Your task to perform on an android device: Show the shopping cart on costco. Search for razer kraken on costco, select the first entry, and add it to the cart. Image 0: 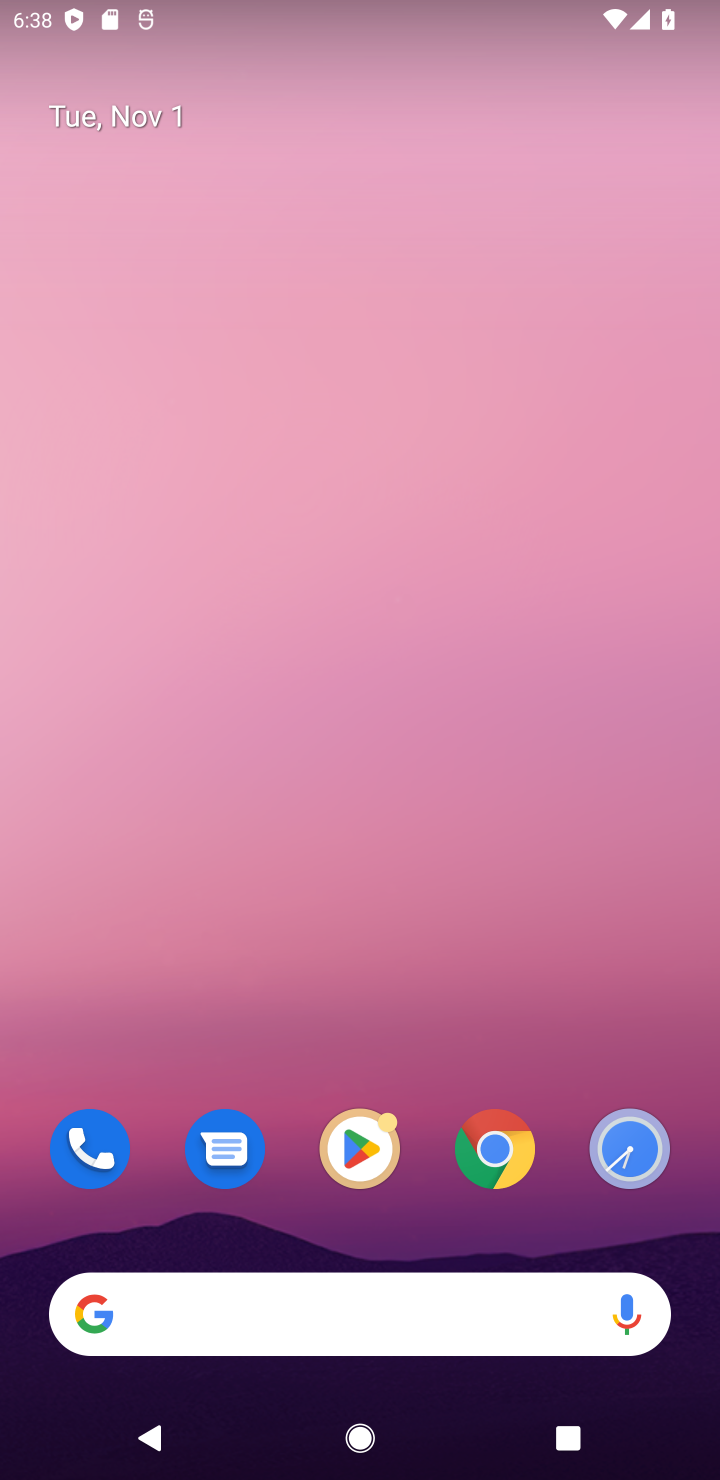
Step 0: drag from (452, 1155) to (506, 263)
Your task to perform on an android device: Show the shopping cart on costco. Search for razer kraken on costco, select the first entry, and add it to the cart. Image 1: 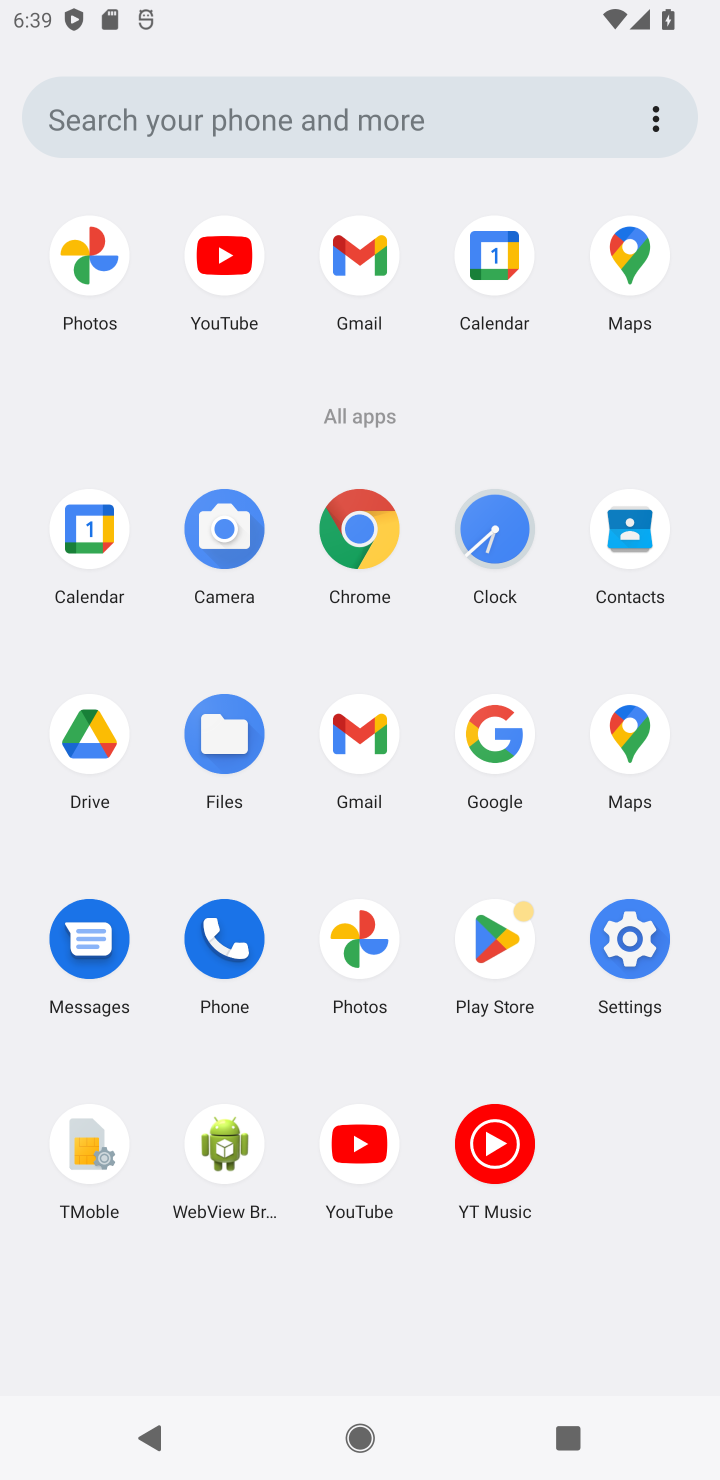
Step 1: click (351, 553)
Your task to perform on an android device: Show the shopping cart on costco. Search for razer kraken on costco, select the first entry, and add it to the cart. Image 2: 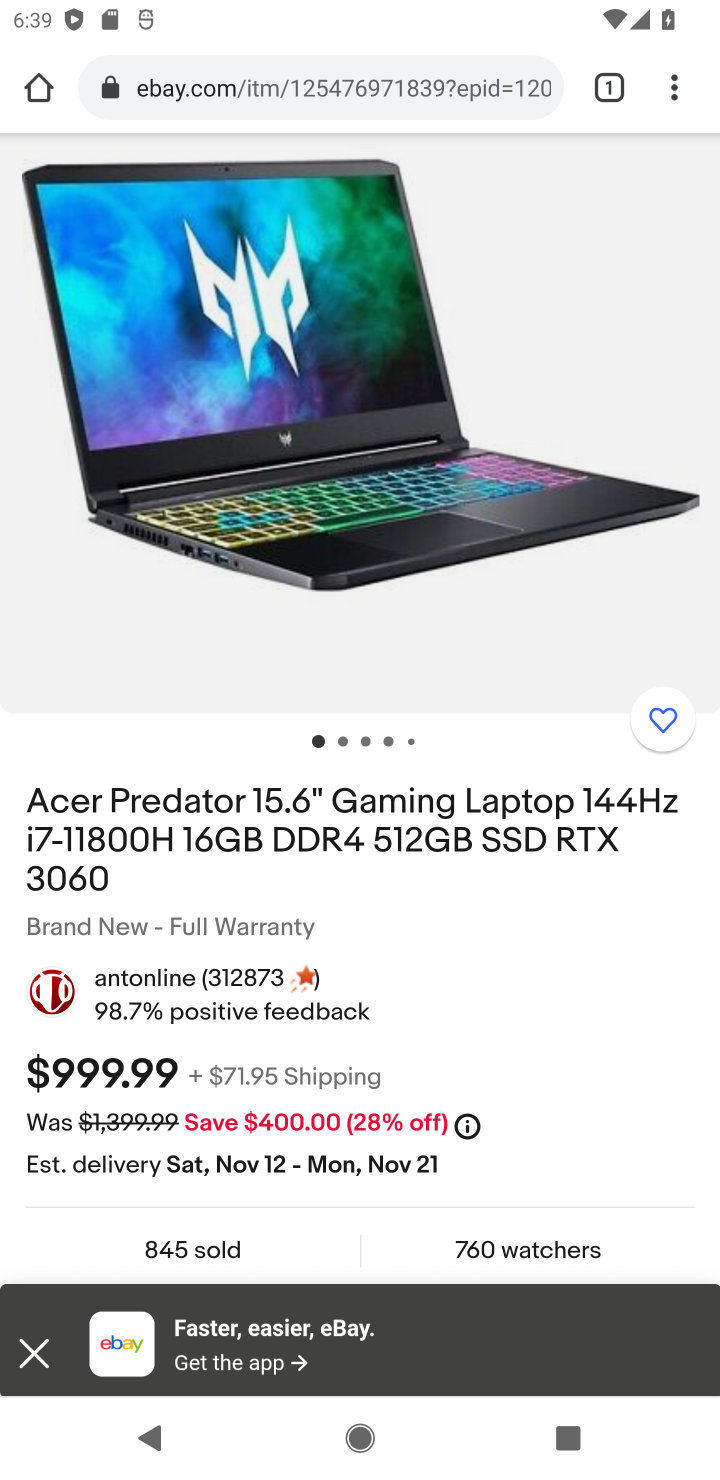
Step 2: click (359, 86)
Your task to perform on an android device: Show the shopping cart on costco. Search for razer kraken on costco, select the first entry, and add it to the cart. Image 3: 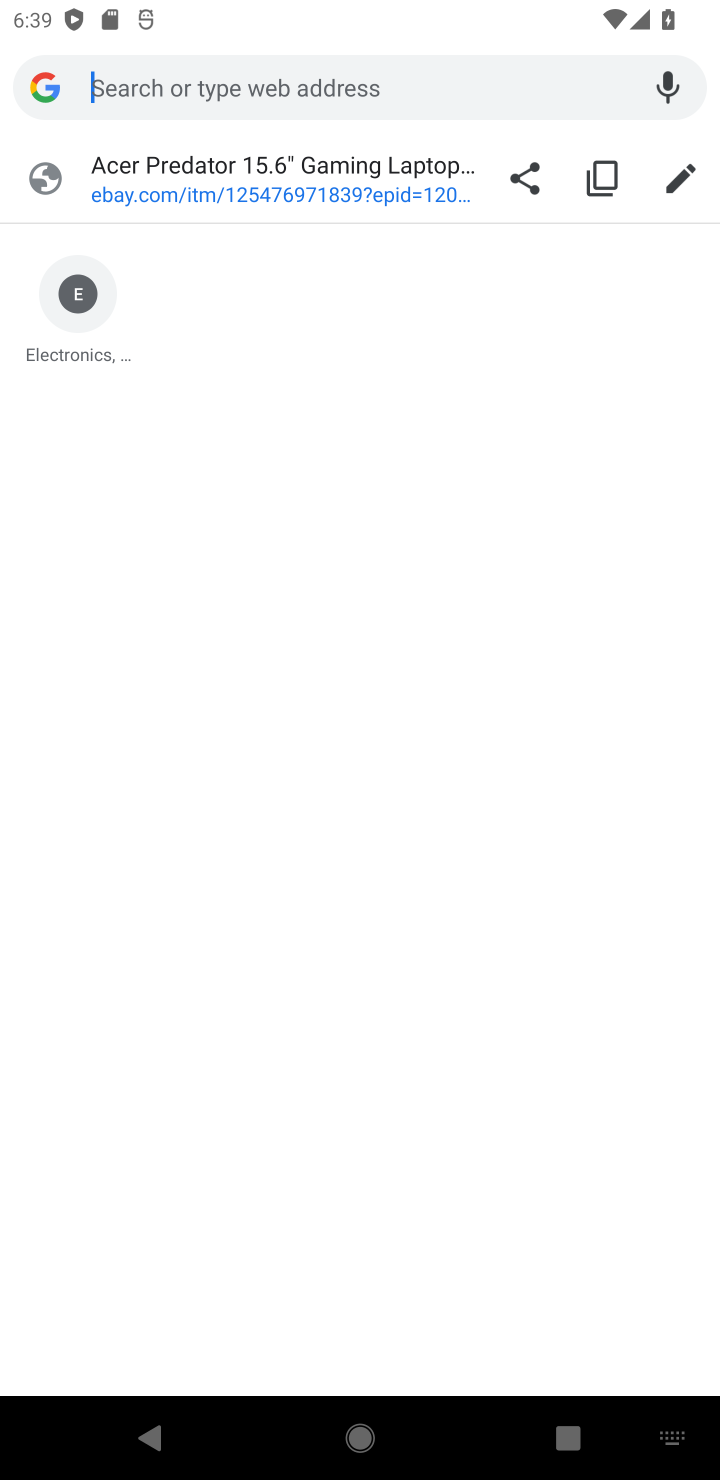
Step 3: type "costco.com"
Your task to perform on an android device: Show the shopping cart on costco. Search for razer kraken on costco, select the first entry, and add it to the cart. Image 4: 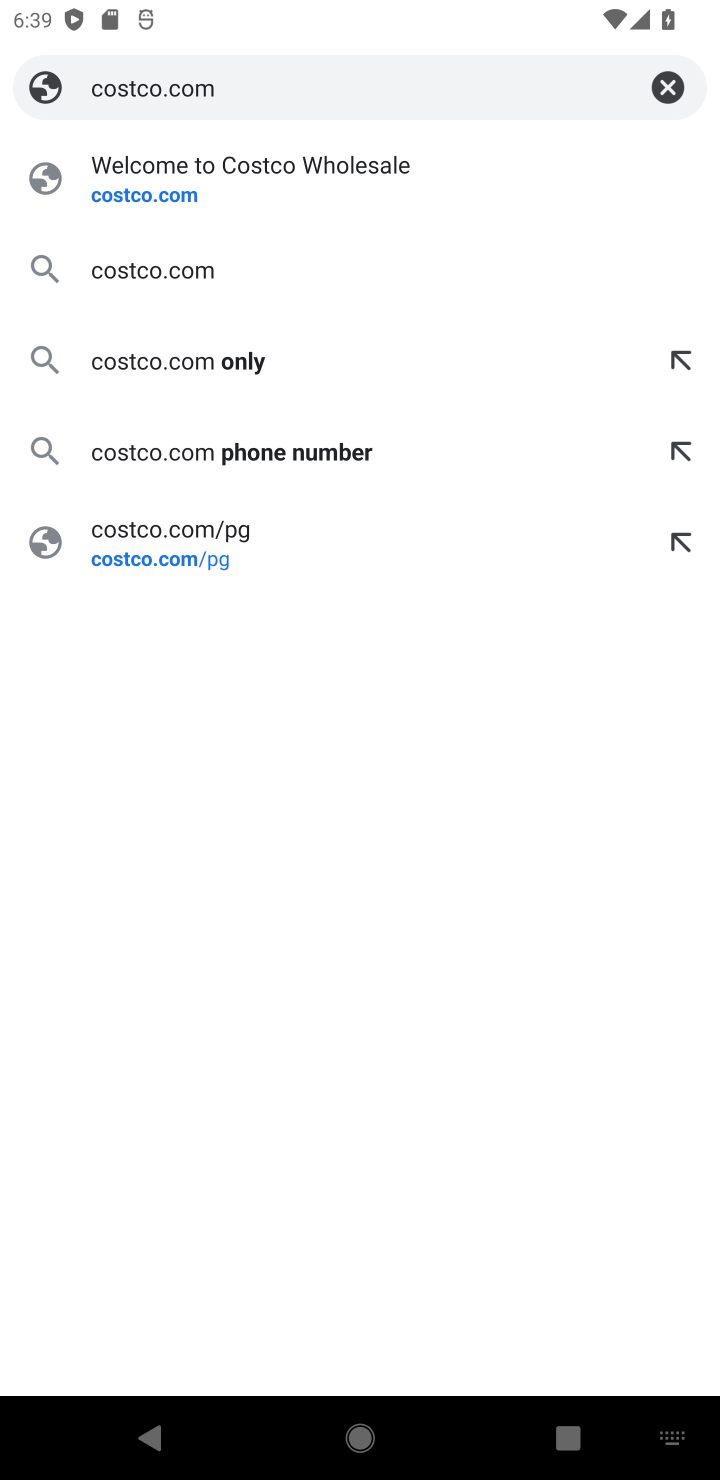
Step 4: press enter
Your task to perform on an android device: Show the shopping cart on costco. Search for razer kraken on costco, select the first entry, and add it to the cart. Image 5: 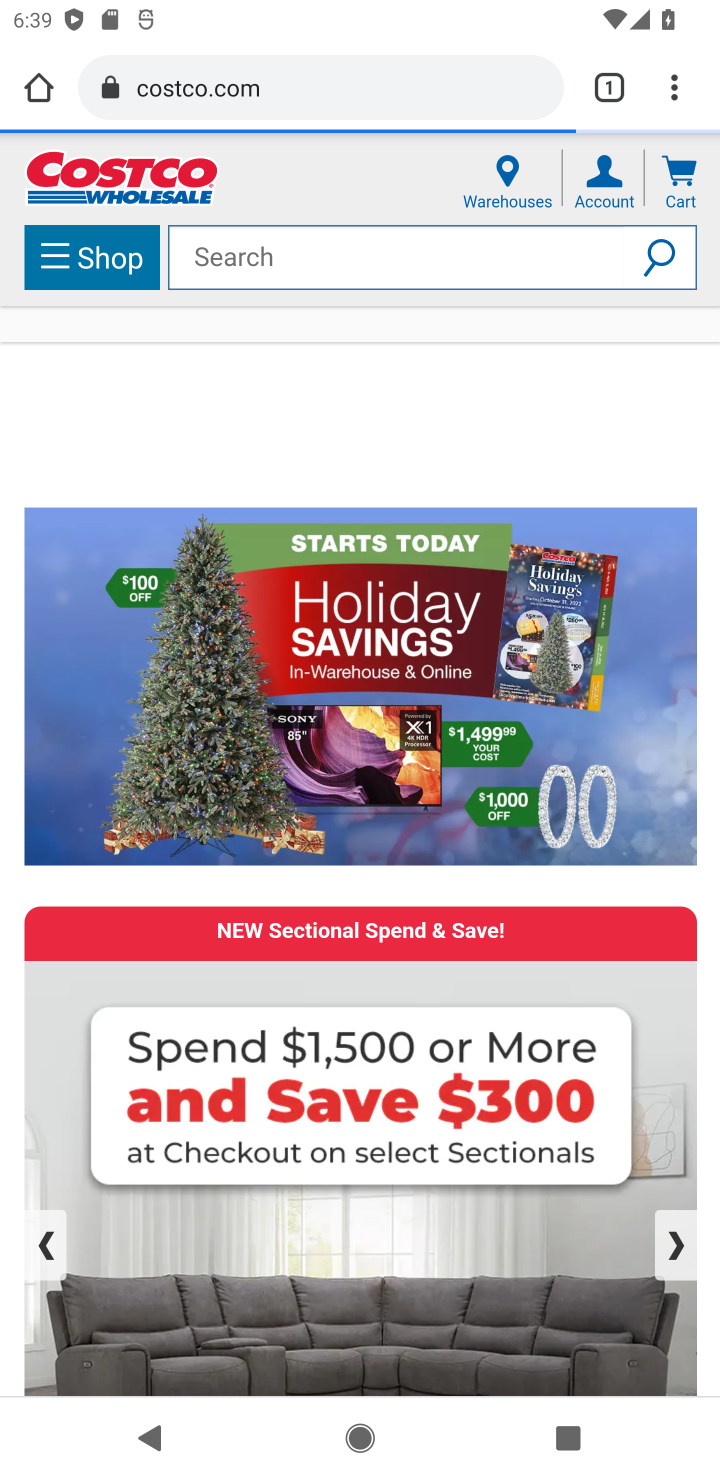
Step 5: click (685, 180)
Your task to perform on an android device: Show the shopping cart on costco. Search for razer kraken on costco, select the first entry, and add it to the cart. Image 6: 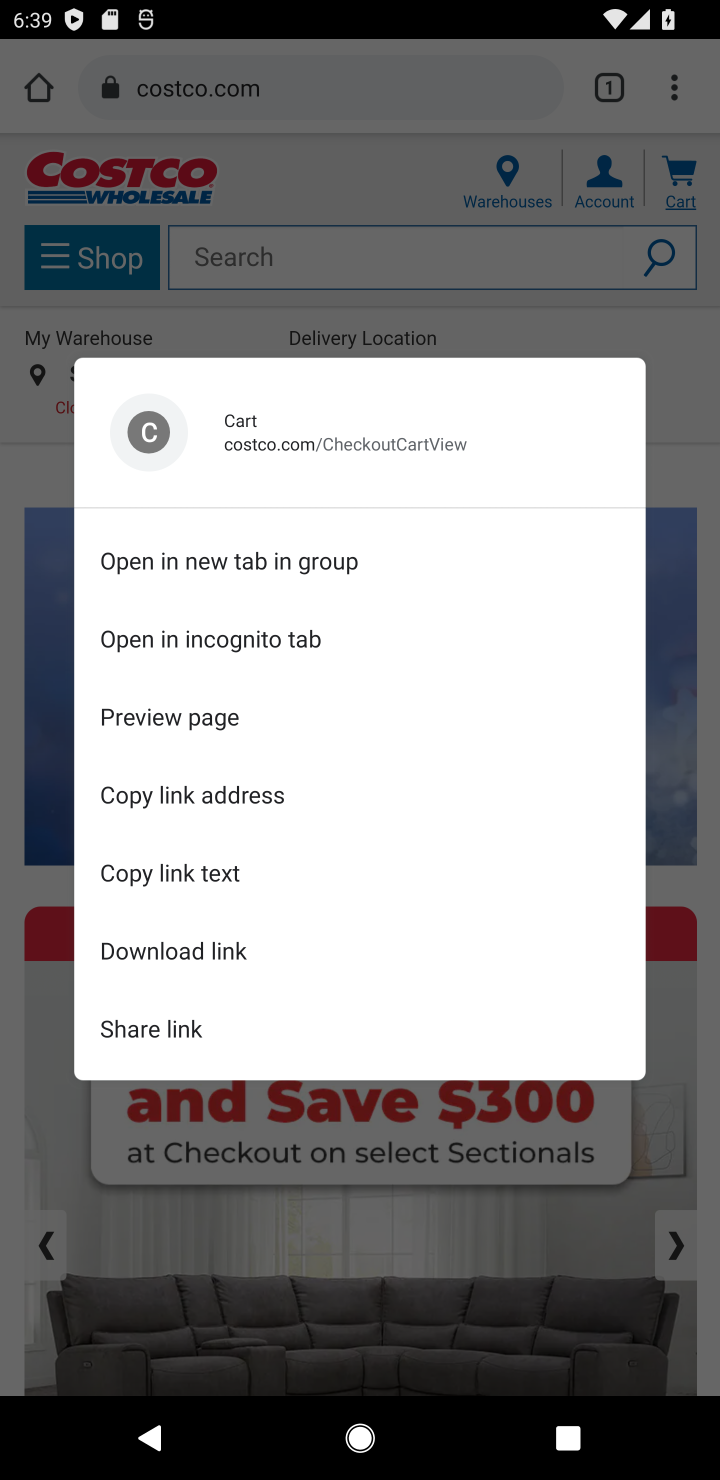
Step 6: click (543, 260)
Your task to perform on an android device: Show the shopping cart on costco. Search for razer kraken on costco, select the first entry, and add it to the cart. Image 7: 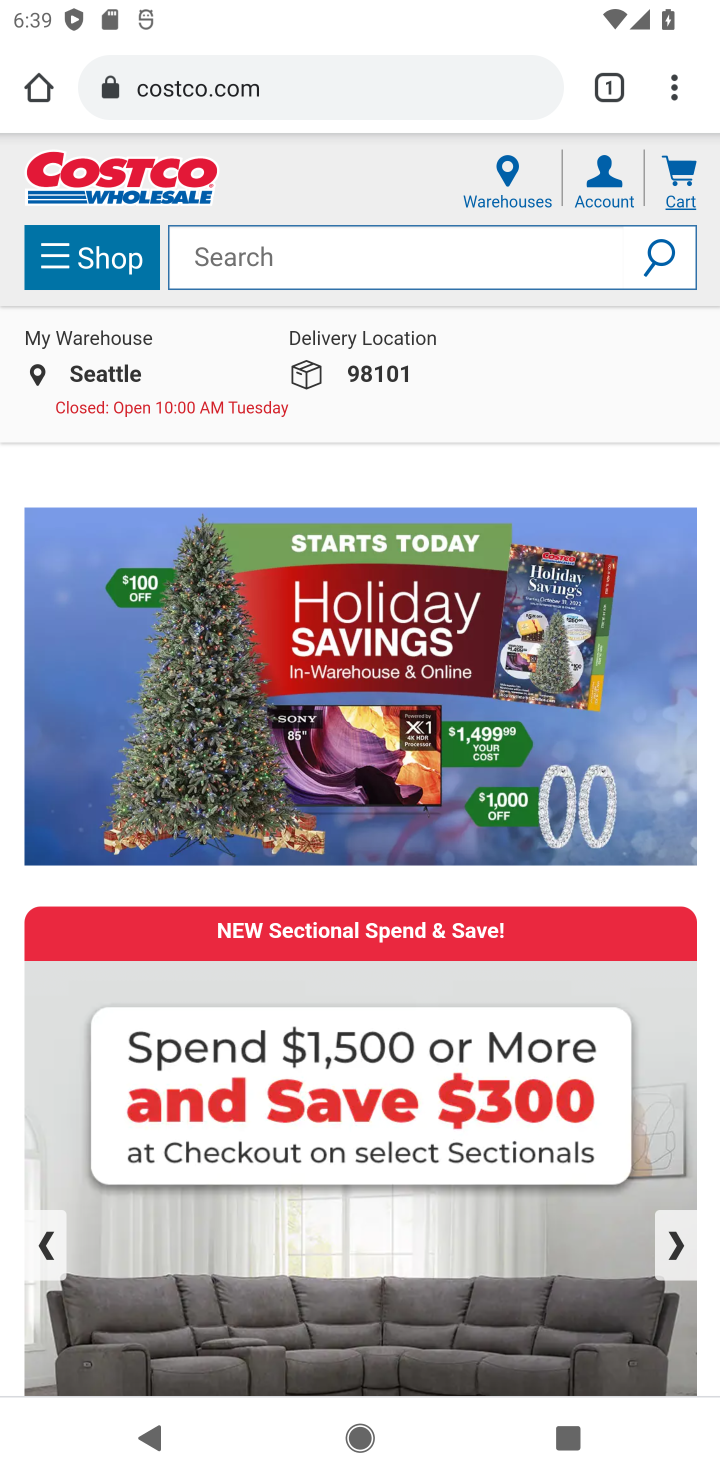
Step 7: click (675, 178)
Your task to perform on an android device: Show the shopping cart on costco. Search for razer kraken on costco, select the first entry, and add it to the cart. Image 8: 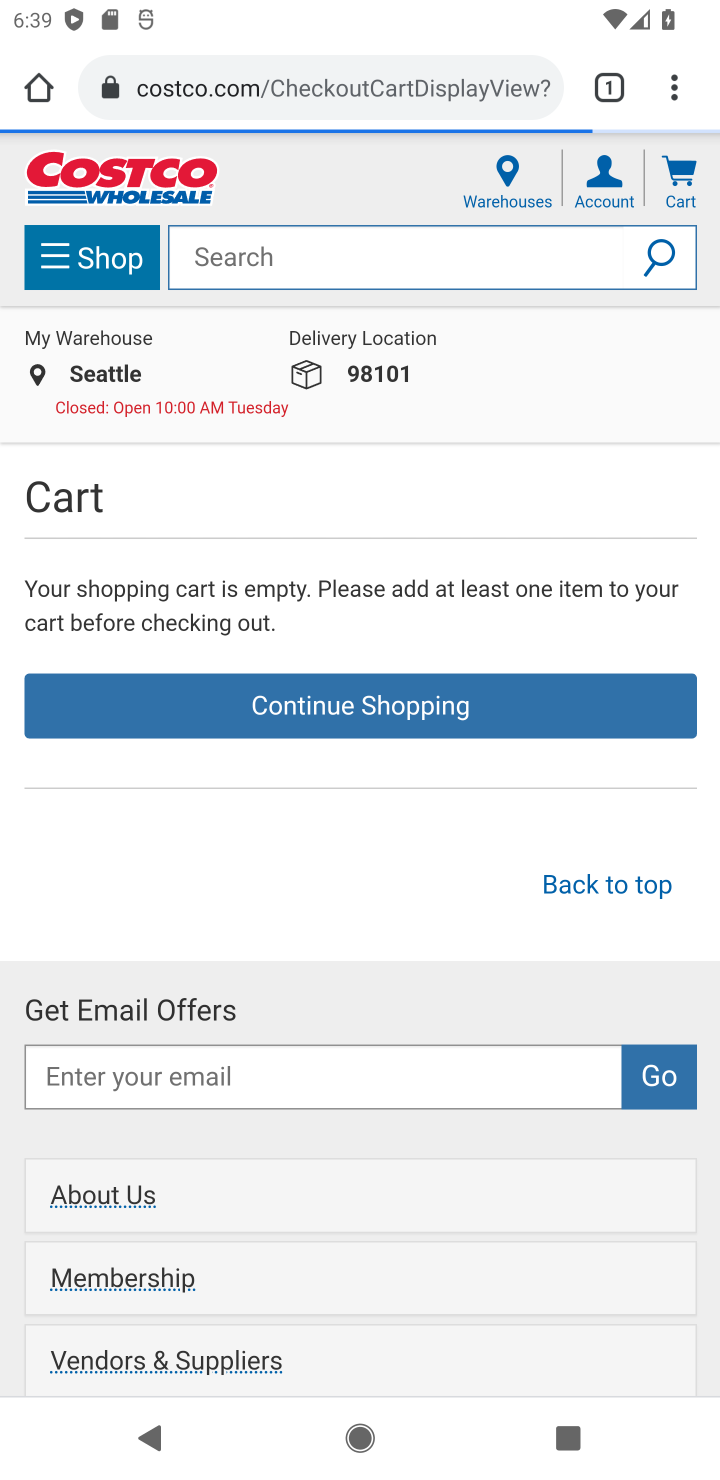
Step 8: click (490, 248)
Your task to perform on an android device: Show the shopping cart on costco. Search for razer kraken on costco, select the first entry, and add it to the cart. Image 9: 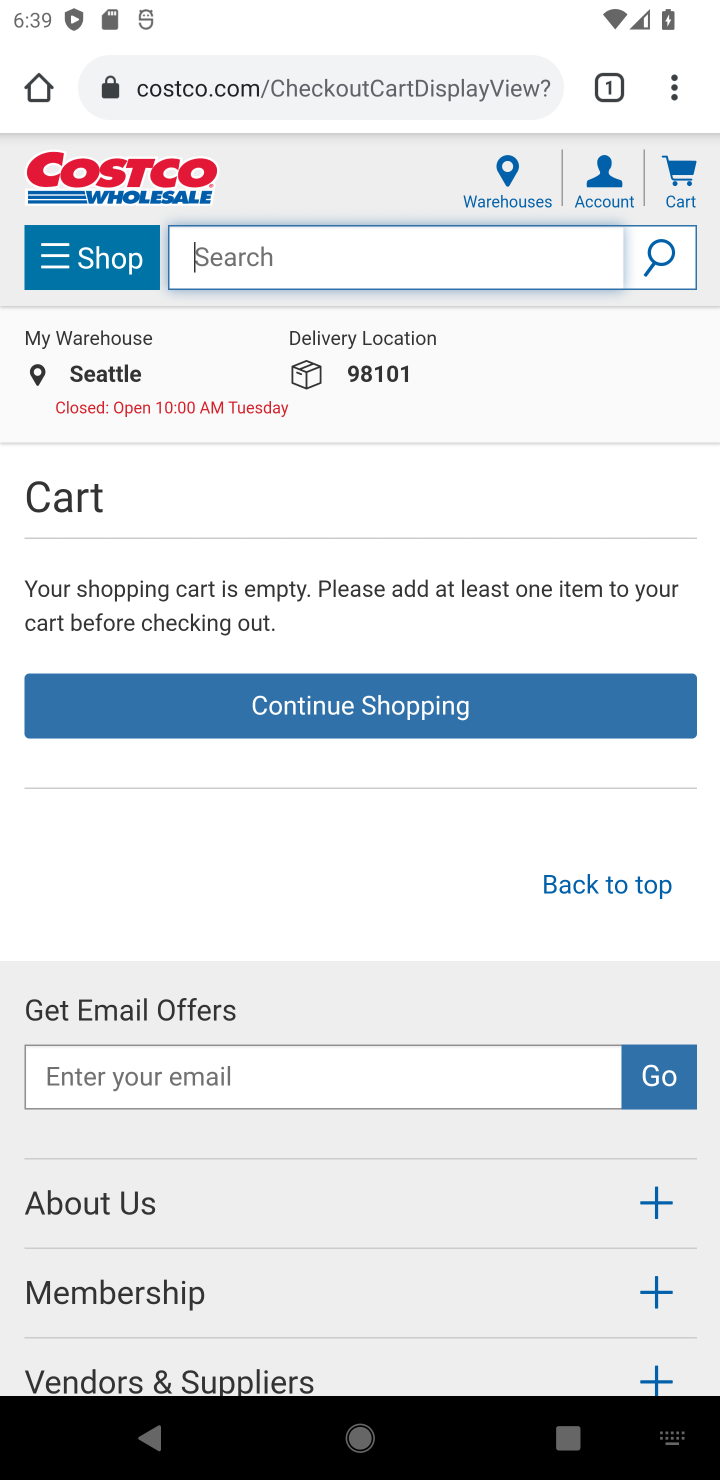
Step 9: type "razer kraken"
Your task to perform on an android device: Show the shopping cart on costco. Search for razer kraken on costco, select the first entry, and add it to the cart. Image 10: 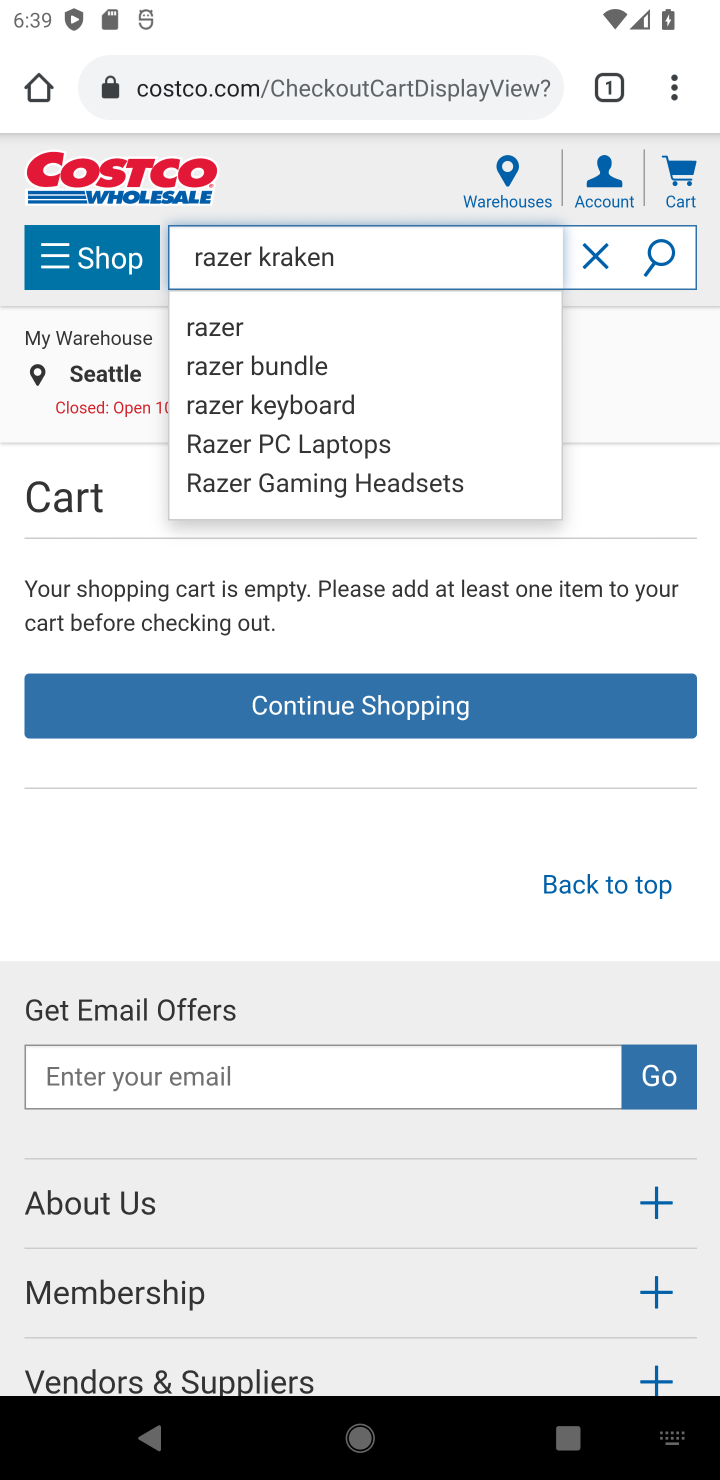
Step 10: press enter
Your task to perform on an android device: Show the shopping cart on costco. Search for razer kraken on costco, select the first entry, and add it to the cart. Image 11: 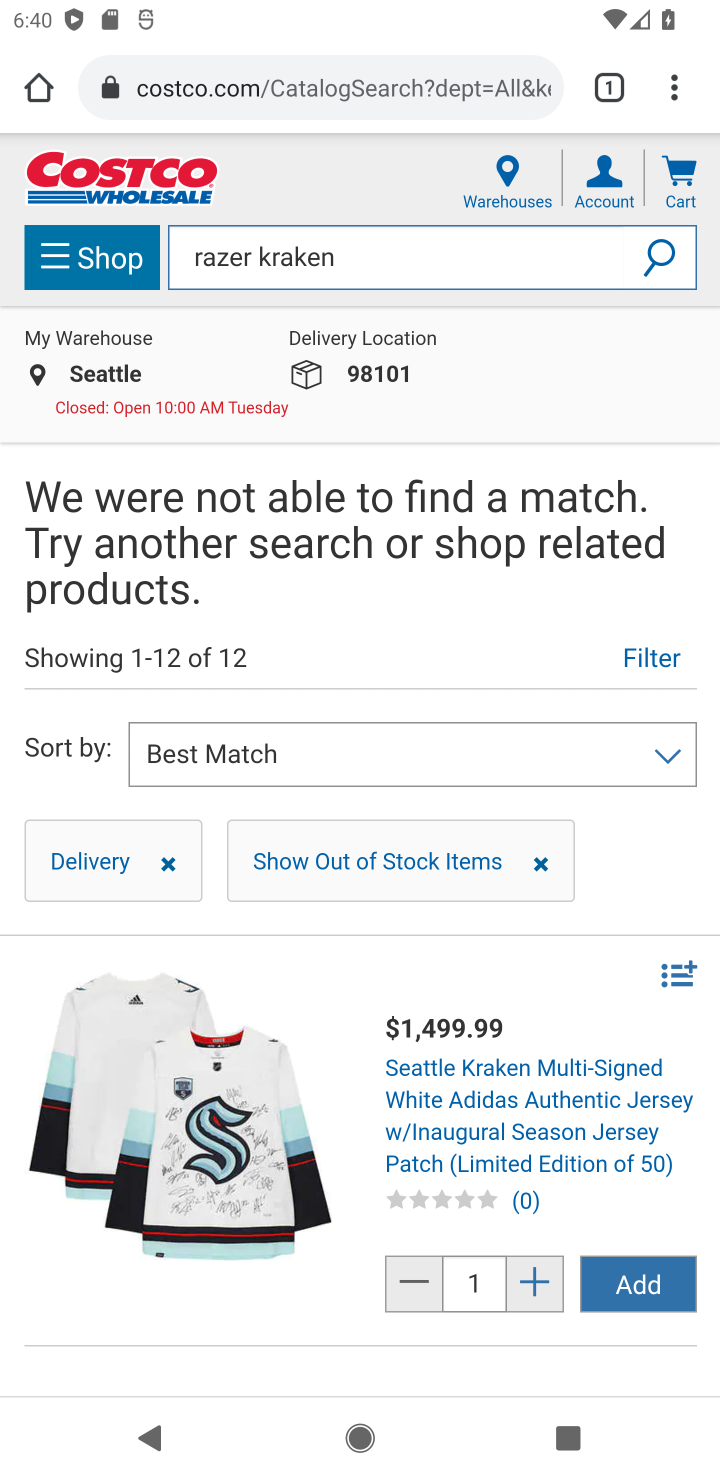
Step 11: task complete